Your task to perform on an android device: toggle notifications settings in the gmail app Image 0: 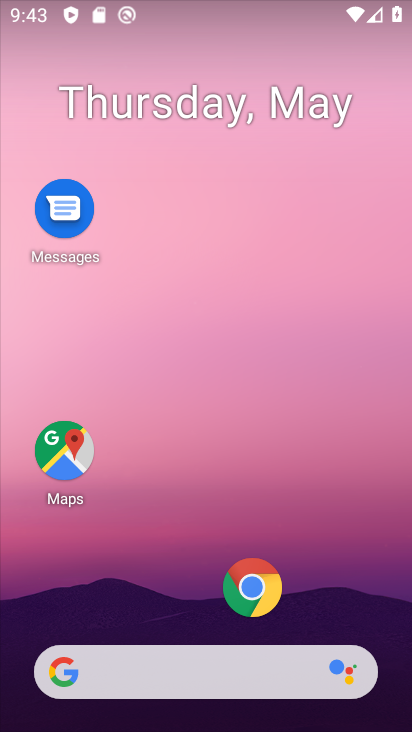
Step 0: drag from (209, 635) to (226, 14)
Your task to perform on an android device: toggle notifications settings in the gmail app Image 1: 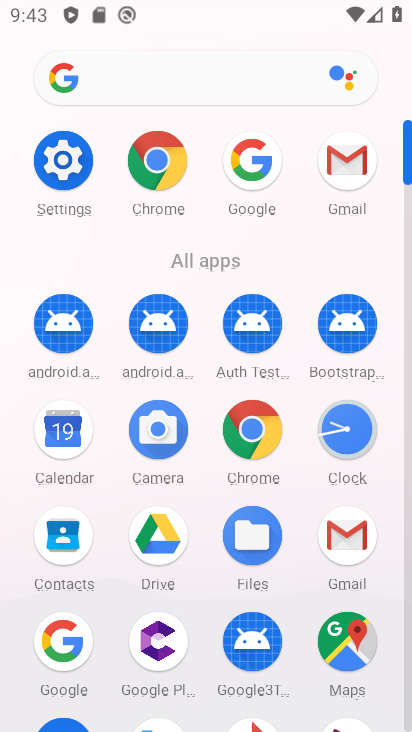
Step 1: click (361, 540)
Your task to perform on an android device: toggle notifications settings in the gmail app Image 2: 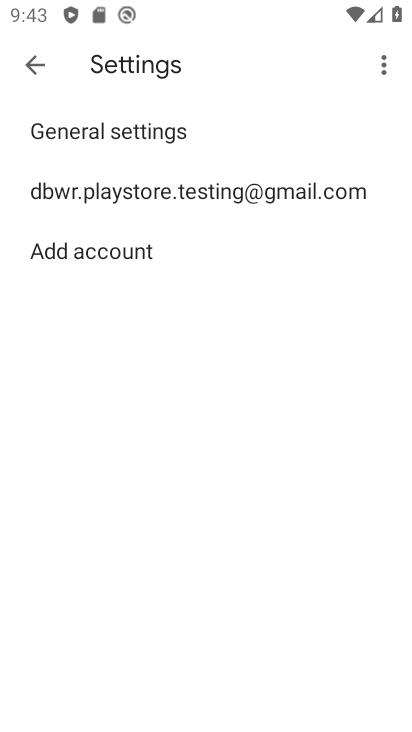
Step 2: click (70, 135)
Your task to perform on an android device: toggle notifications settings in the gmail app Image 3: 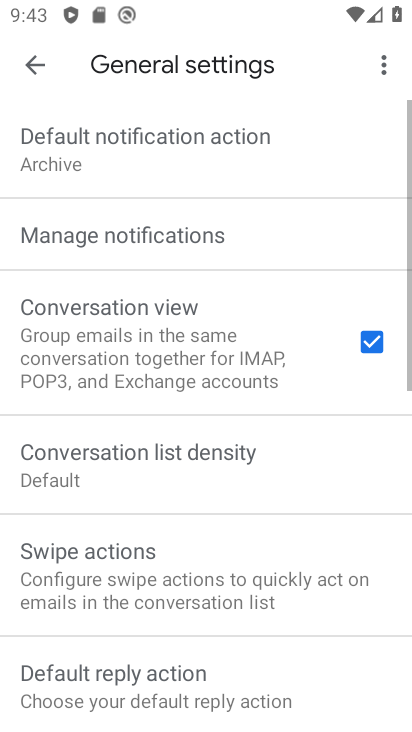
Step 3: click (95, 238)
Your task to perform on an android device: toggle notifications settings in the gmail app Image 4: 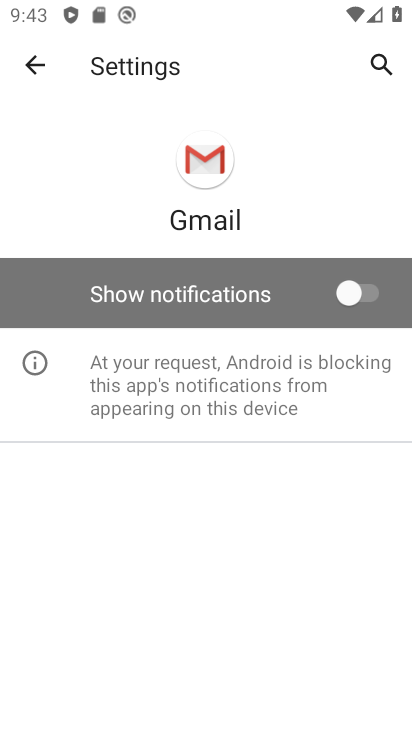
Step 4: click (355, 279)
Your task to perform on an android device: toggle notifications settings in the gmail app Image 5: 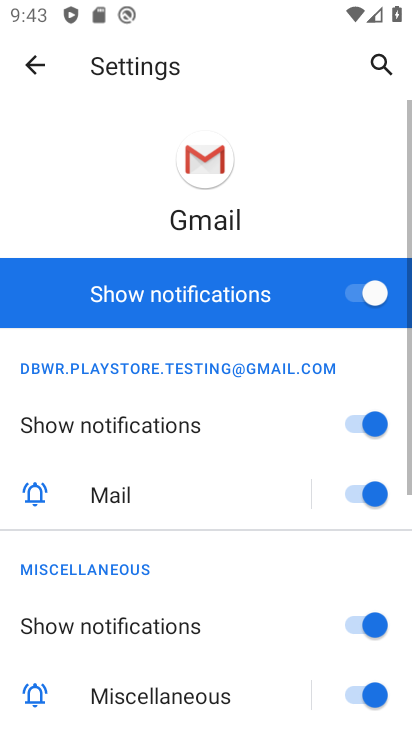
Step 5: task complete